Your task to perform on an android device: turn off location history Image 0: 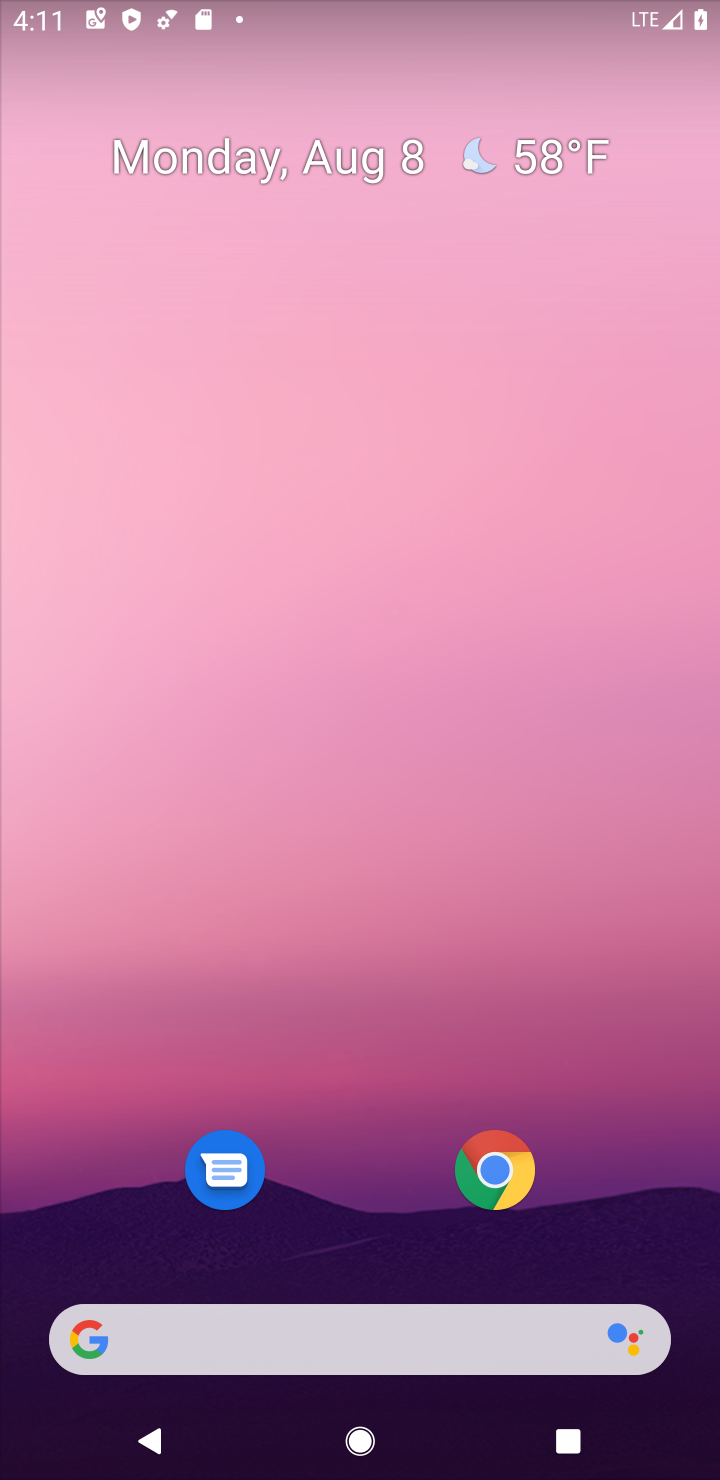
Step 0: drag from (354, 1080) to (354, 363)
Your task to perform on an android device: turn off location history Image 1: 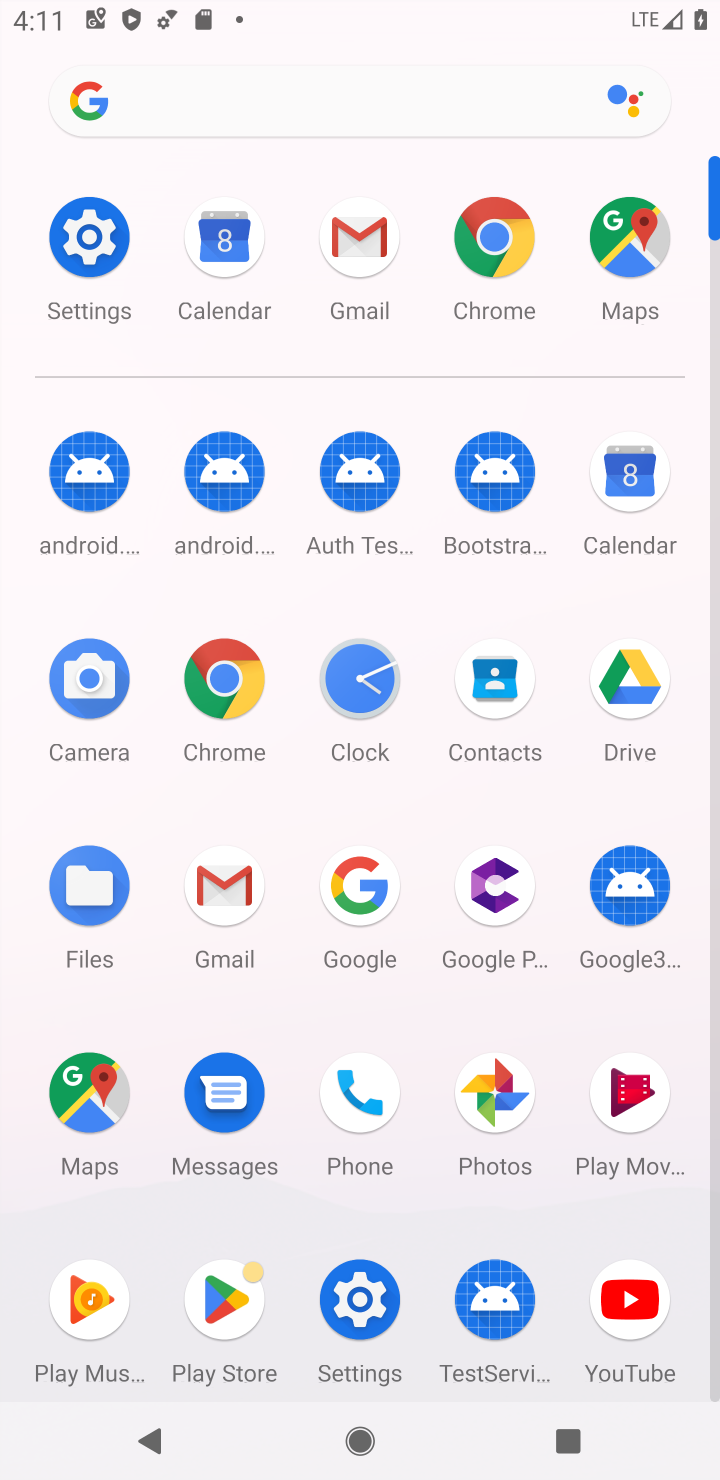
Step 1: click (109, 248)
Your task to perform on an android device: turn off location history Image 2: 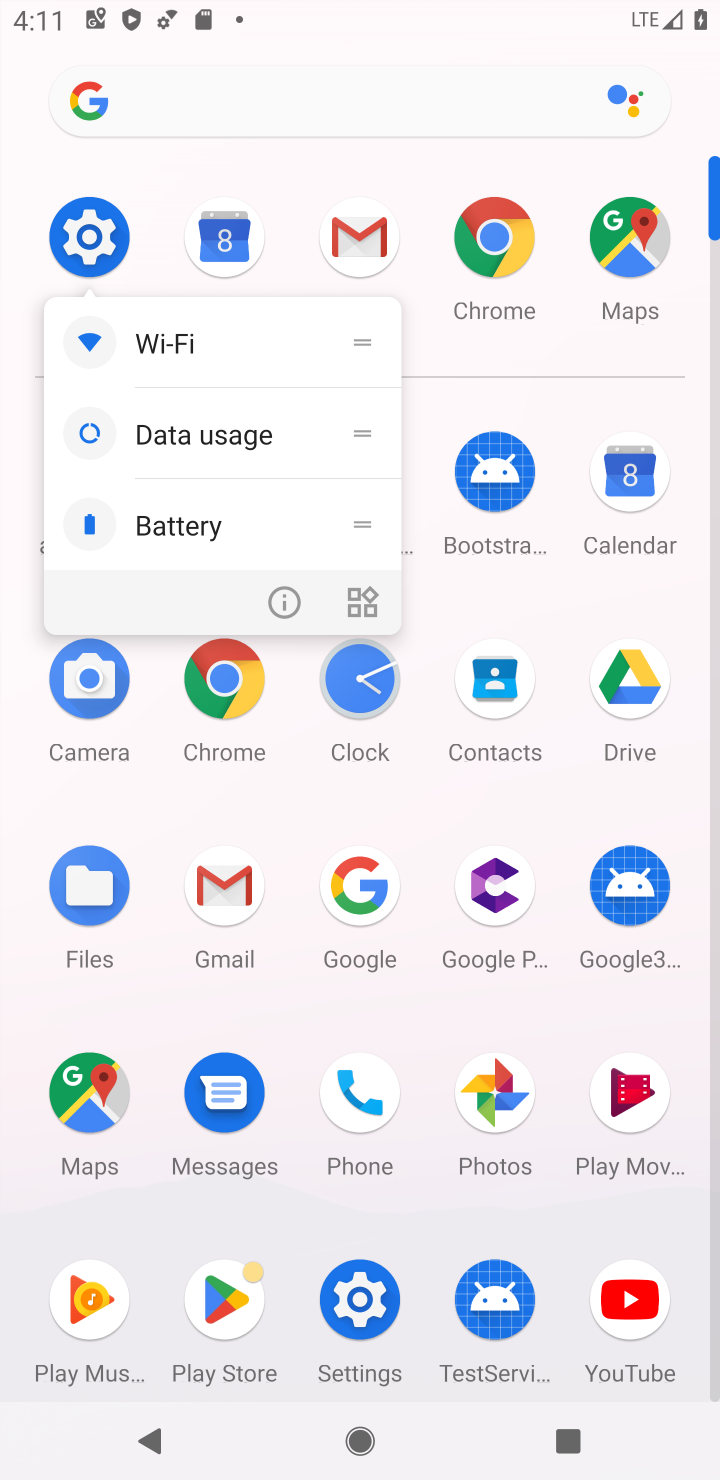
Step 2: click (73, 263)
Your task to perform on an android device: turn off location history Image 3: 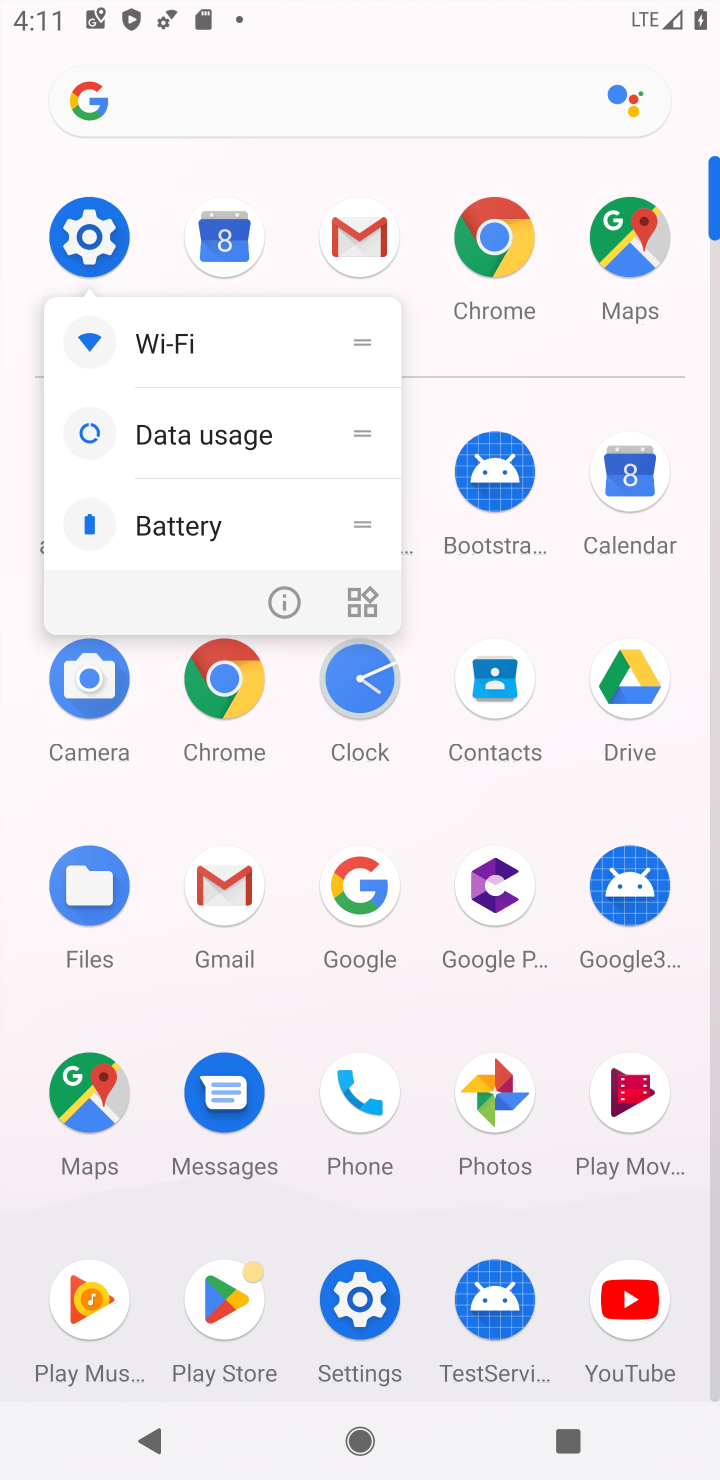
Step 3: click (73, 250)
Your task to perform on an android device: turn off location history Image 4: 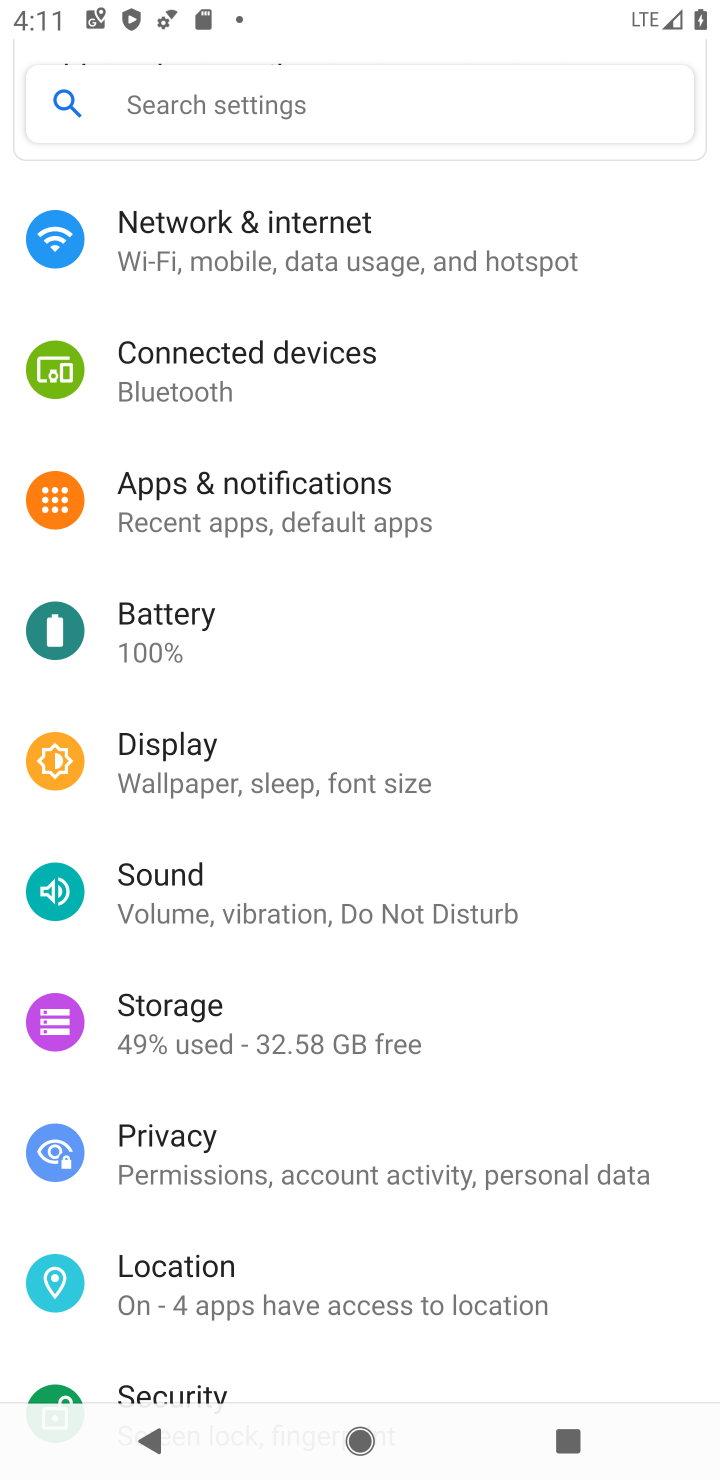
Step 4: click (232, 1279)
Your task to perform on an android device: turn off location history Image 5: 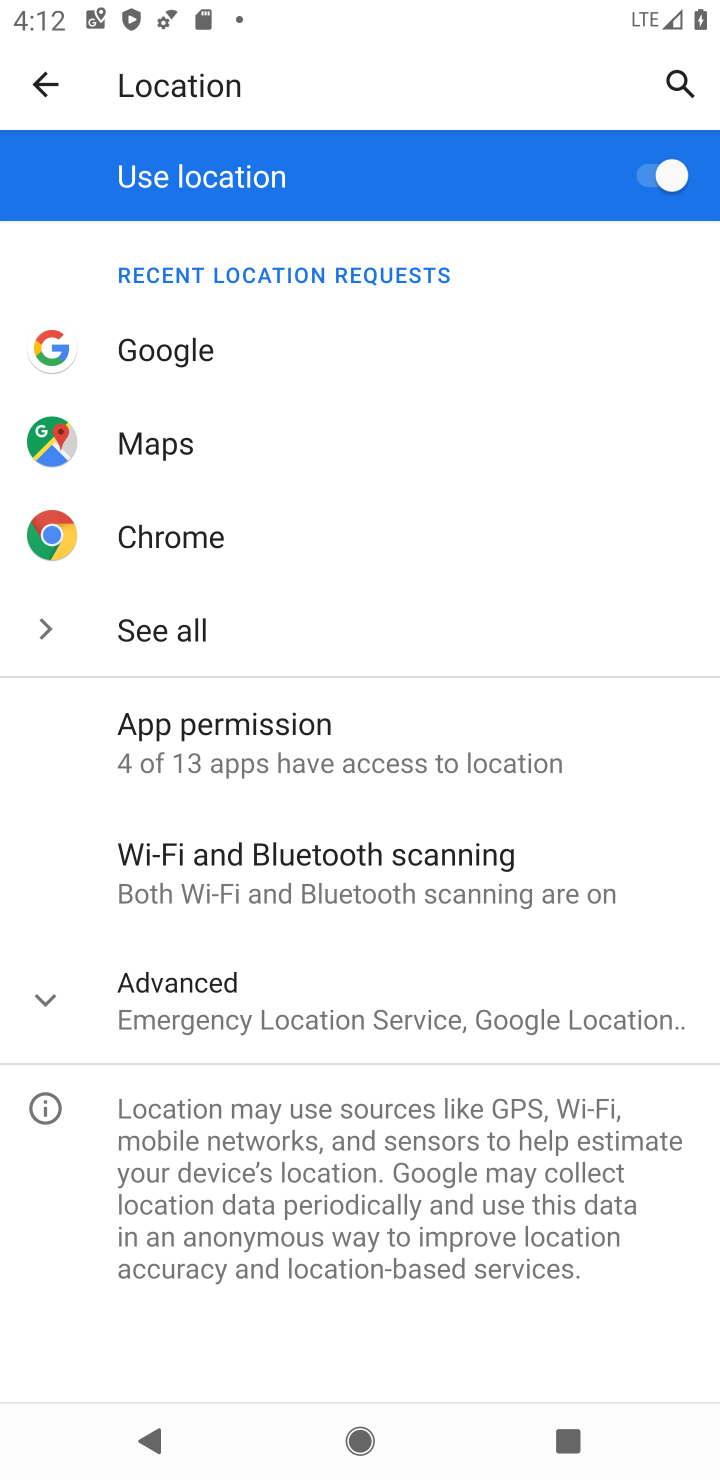
Step 5: click (296, 1018)
Your task to perform on an android device: turn off location history Image 6: 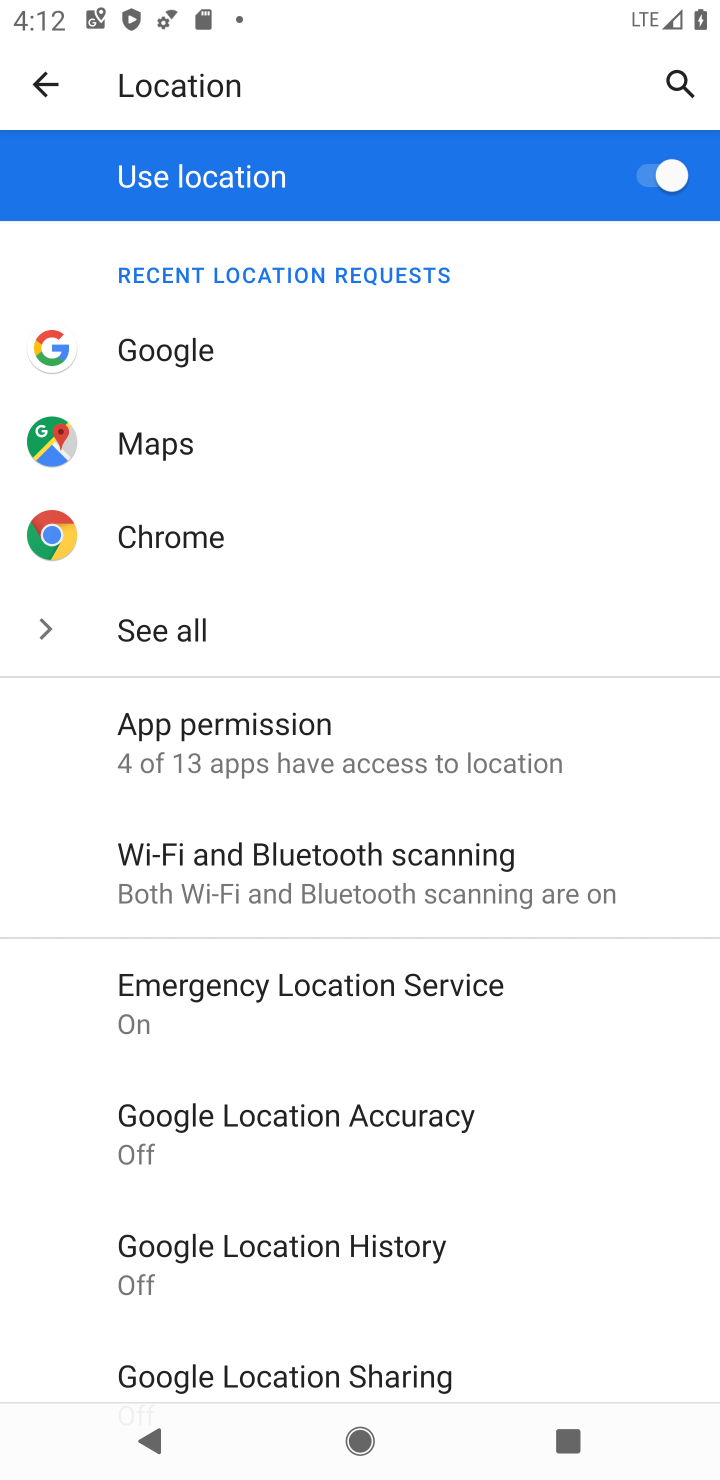
Step 6: click (475, 1264)
Your task to perform on an android device: turn off location history Image 7: 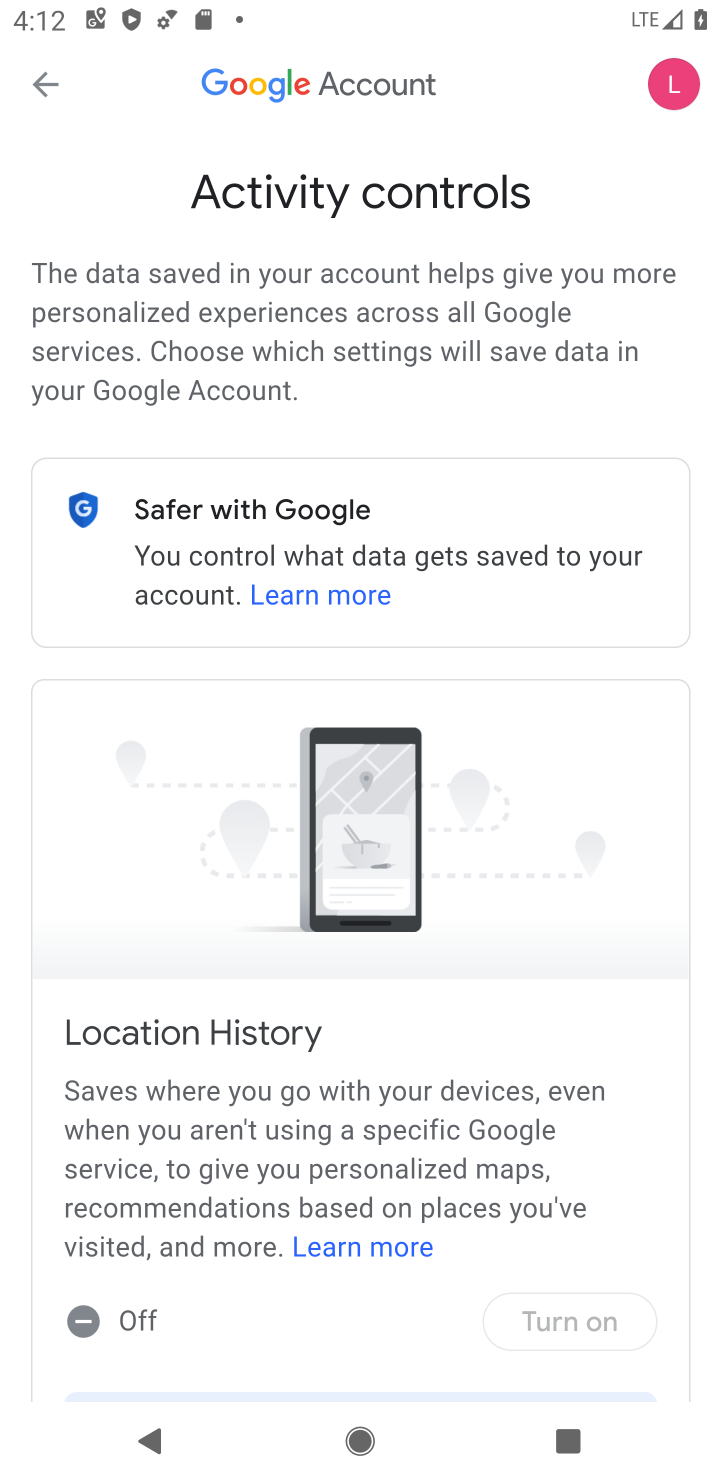
Step 7: task complete